Your task to perform on an android device: Is it going to rain tomorrow? Image 0: 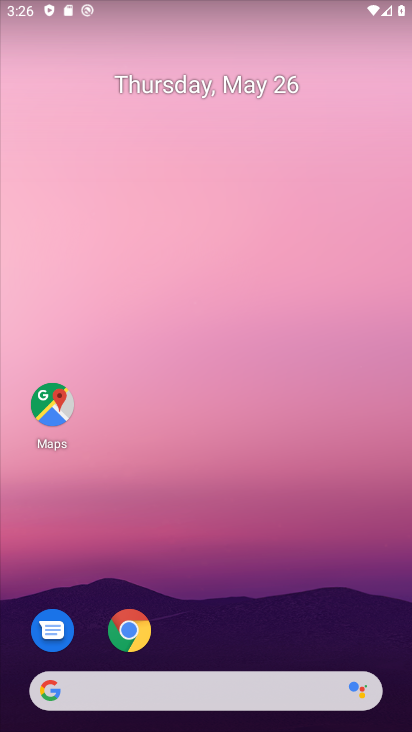
Step 0: drag from (273, 604) to (219, 92)
Your task to perform on an android device: Is it going to rain tomorrow? Image 1: 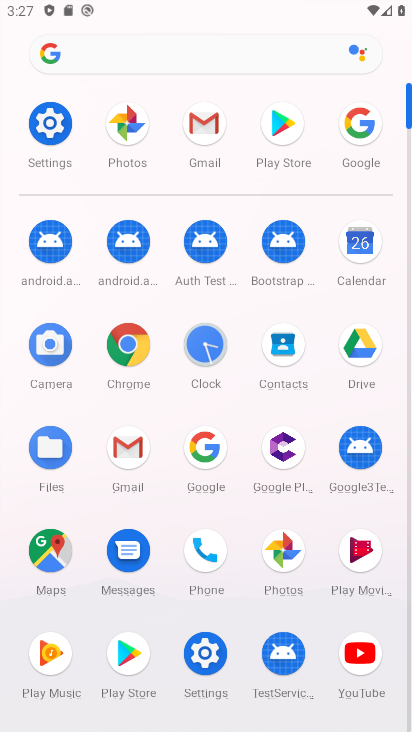
Step 1: click (358, 121)
Your task to perform on an android device: Is it going to rain tomorrow? Image 2: 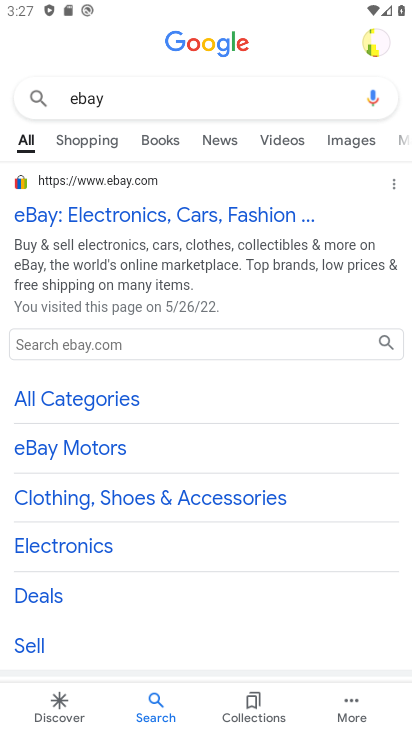
Step 2: click (279, 107)
Your task to perform on an android device: Is it going to rain tomorrow? Image 3: 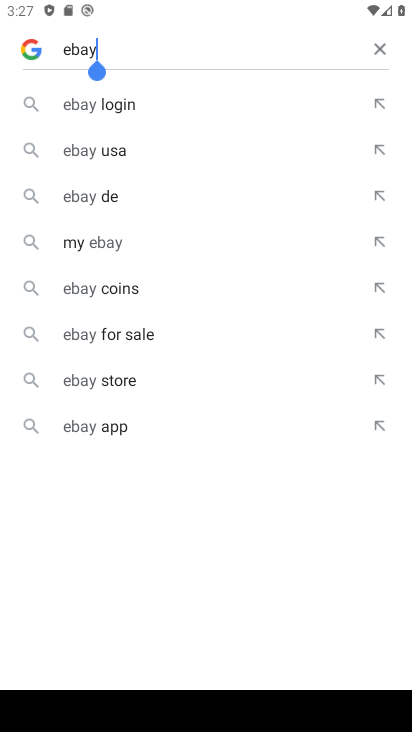
Step 3: click (381, 47)
Your task to perform on an android device: Is it going to rain tomorrow? Image 4: 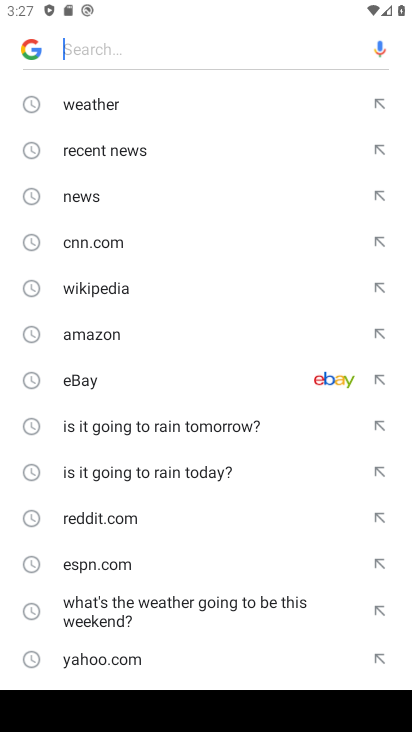
Step 4: type "Is it going to rain tomorrow"
Your task to perform on an android device: Is it going to rain tomorrow? Image 5: 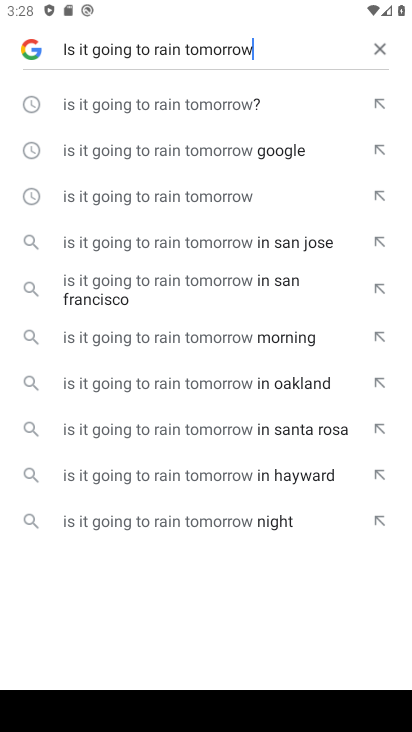
Step 5: click (221, 97)
Your task to perform on an android device: Is it going to rain tomorrow? Image 6: 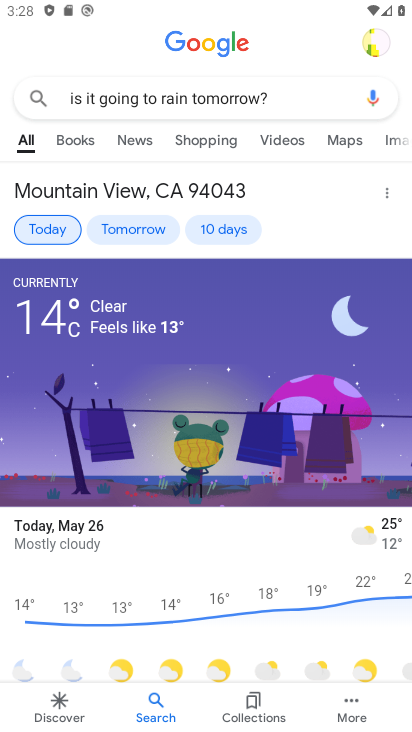
Step 6: click (143, 226)
Your task to perform on an android device: Is it going to rain tomorrow? Image 7: 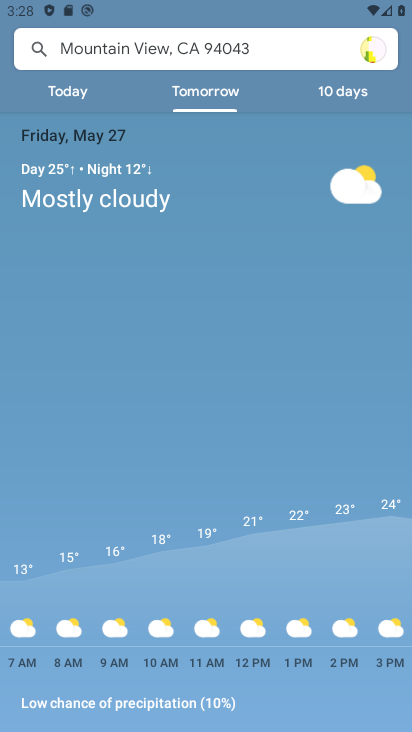
Step 7: task complete